Your task to perform on an android device: Go to notification settings Image 0: 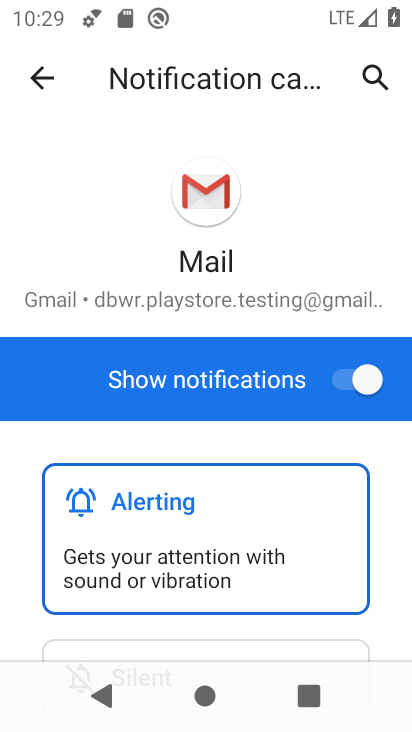
Step 0: press home button
Your task to perform on an android device: Go to notification settings Image 1: 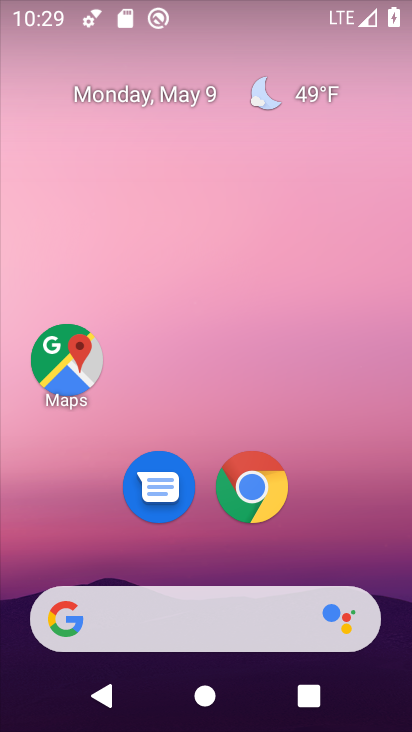
Step 1: drag from (322, 514) to (106, 3)
Your task to perform on an android device: Go to notification settings Image 2: 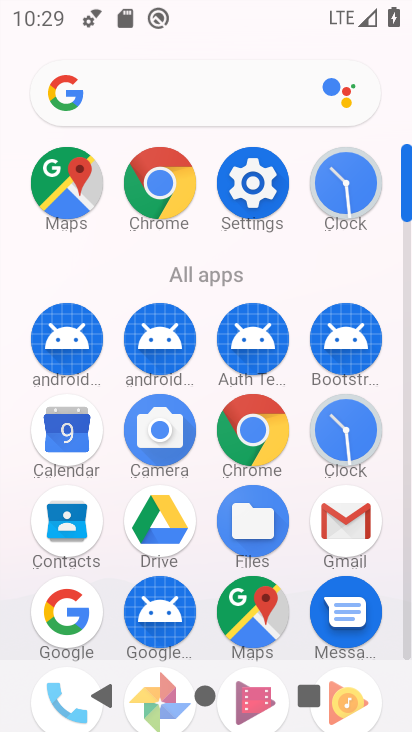
Step 2: click (255, 191)
Your task to perform on an android device: Go to notification settings Image 3: 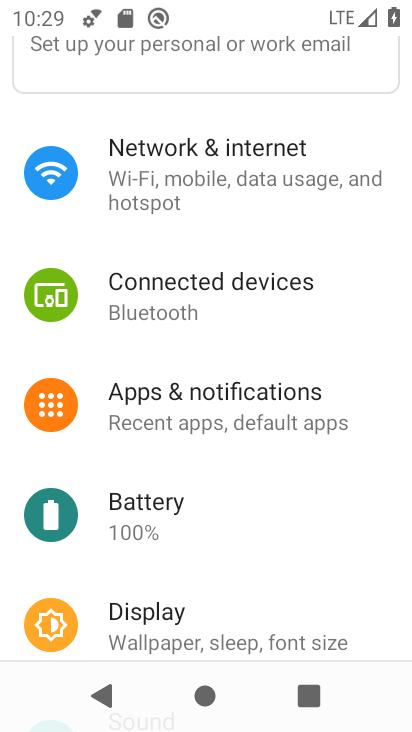
Step 3: click (196, 410)
Your task to perform on an android device: Go to notification settings Image 4: 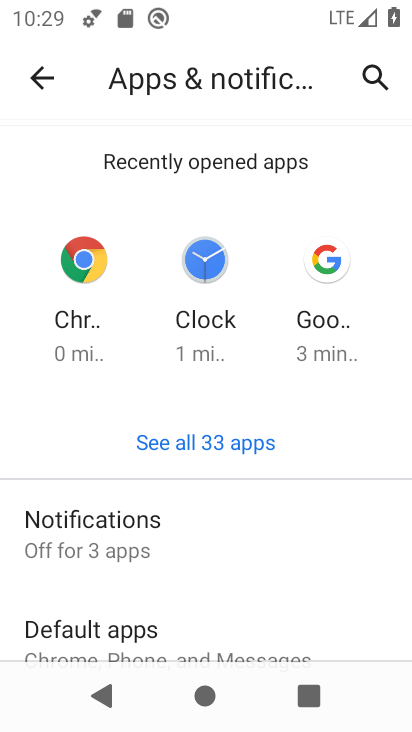
Step 4: click (89, 545)
Your task to perform on an android device: Go to notification settings Image 5: 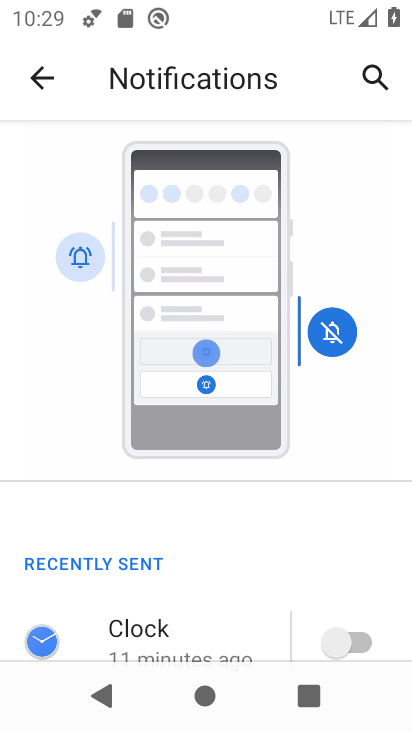
Step 5: task complete